Your task to perform on an android device: Go to internet settings Image 0: 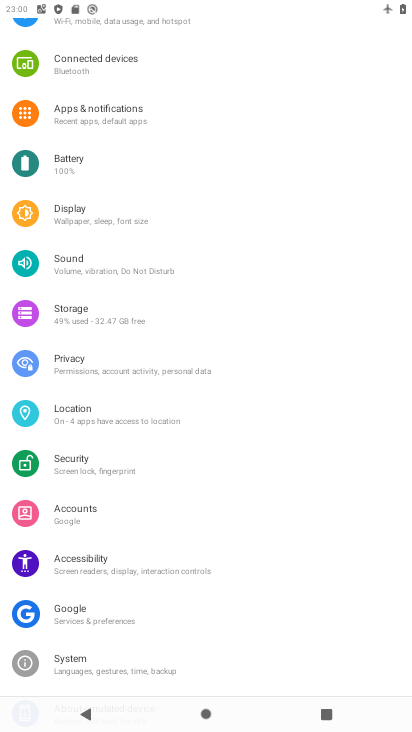
Step 0: drag from (185, 146) to (205, 513)
Your task to perform on an android device: Go to internet settings Image 1: 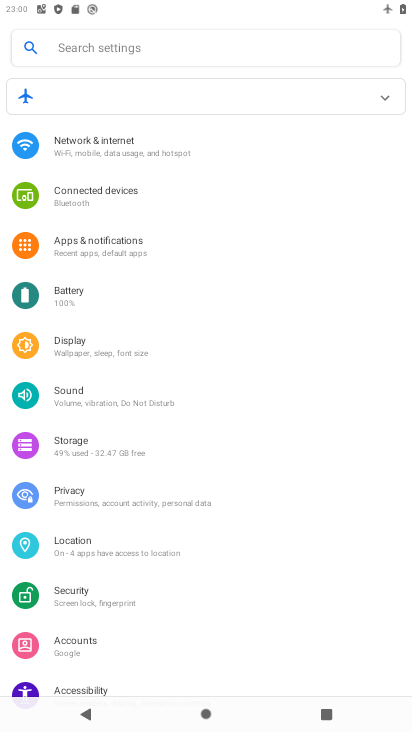
Step 1: click (104, 137)
Your task to perform on an android device: Go to internet settings Image 2: 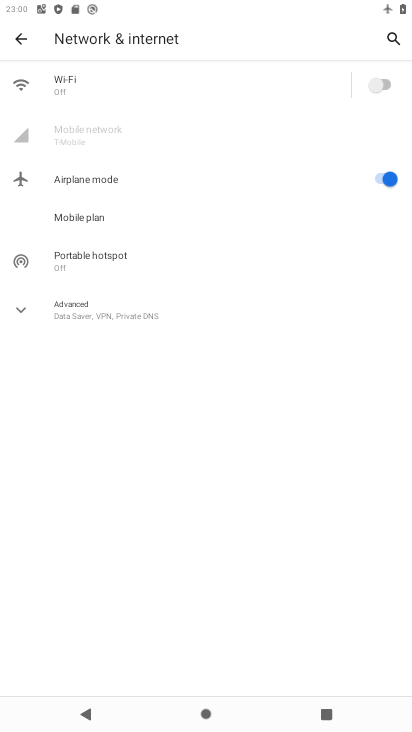
Step 2: click (107, 309)
Your task to perform on an android device: Go to internet settings Image 3: 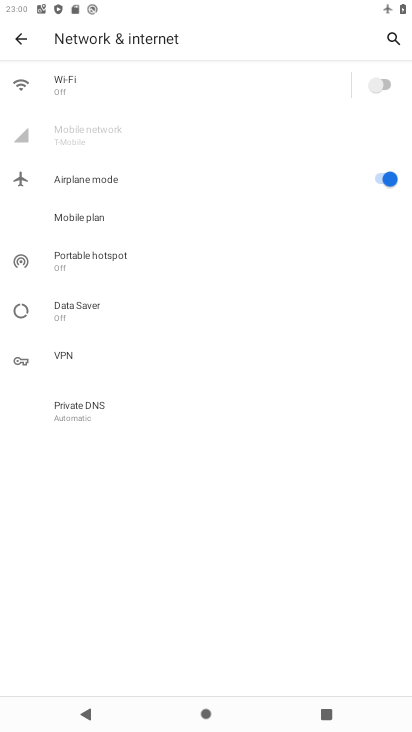
Step 3: task complete